Your task to perform on an android device: turn off picture-in-picture Image 0: 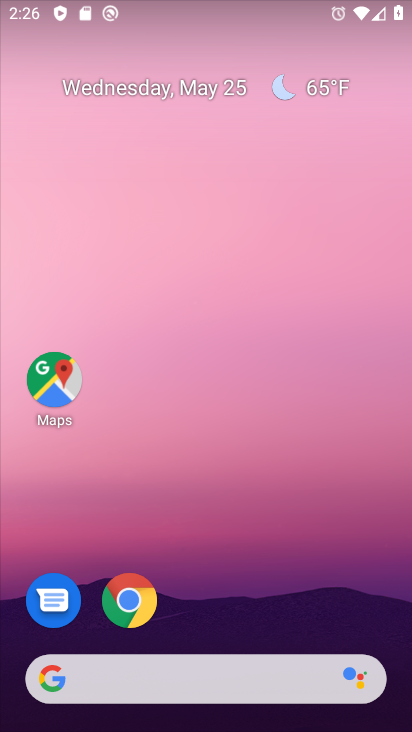
Step 0: click (129, 596)
Your task to perform on an android device: turn off picture-in-picture Image 1: 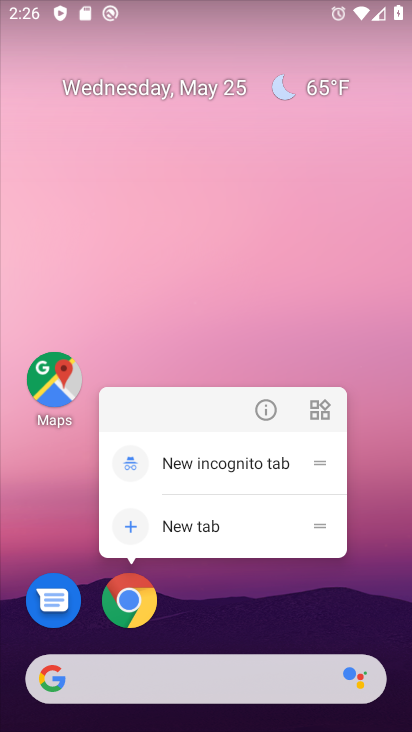
Step 1: click (259, 403)
Your task to perform on an android device: turn off picture-in-picture Image 2: 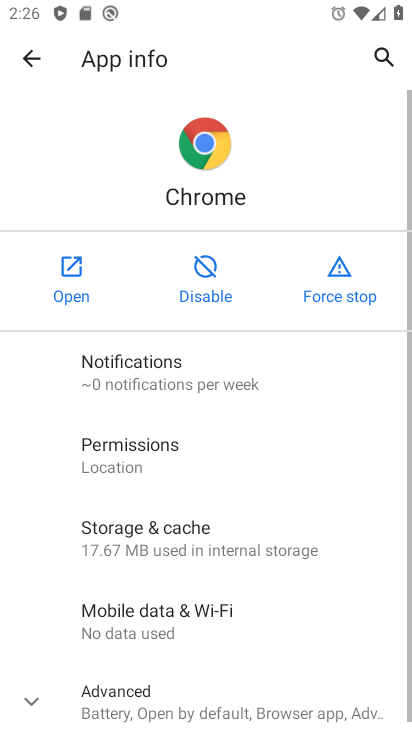
Step 2: drag from (217, 582) to (238, 86)
Your task to perform on an android device: turn off picture-in-picture Image 3: 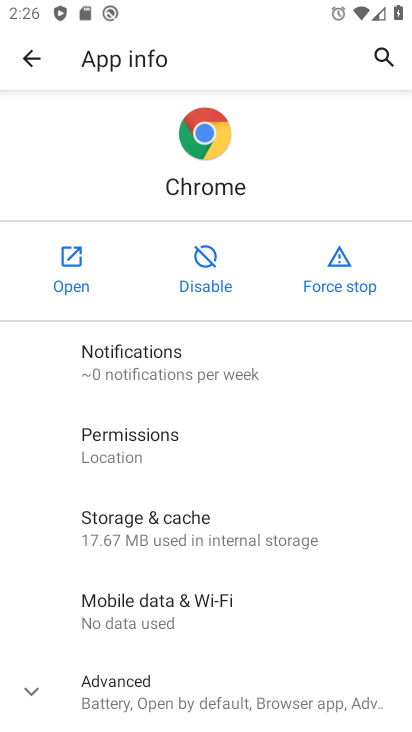
Step 3: click (190, 686)
Your task to perform on an android device: turn off picture-in-picture Image 4: 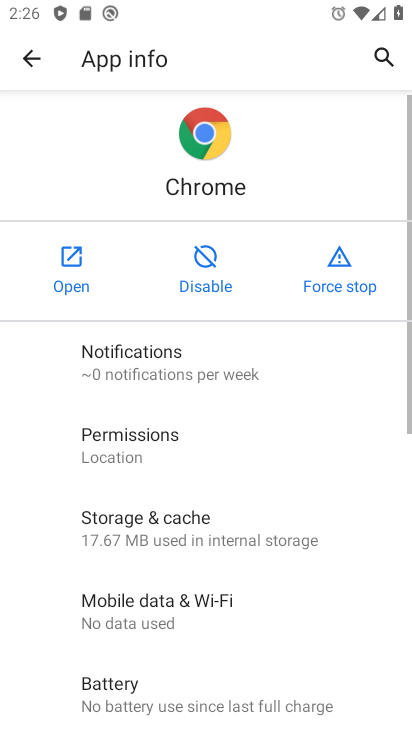
Step 4: drag from (199, 613) to (134, 72)
Your task to perform on an android device: turn off picture-in-picture Image 5: 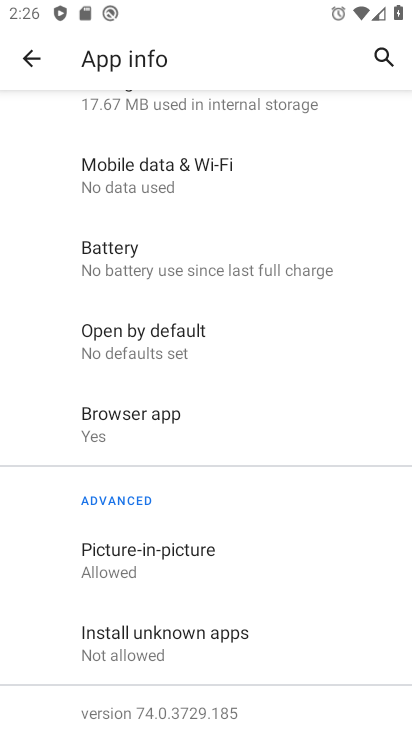
Step 5: click (148, 579)
Your task to perform on an android device: turn off picture-in-picture Image 6: 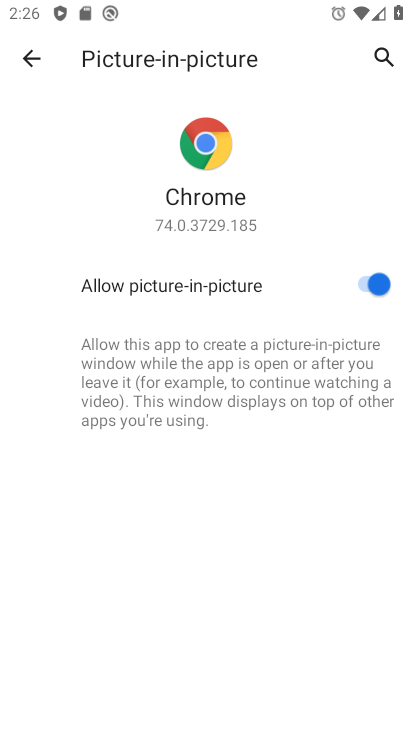
Step 6: click (360, 291)
Your task to perform on an android device: turn off picture-in-picture Image 7: 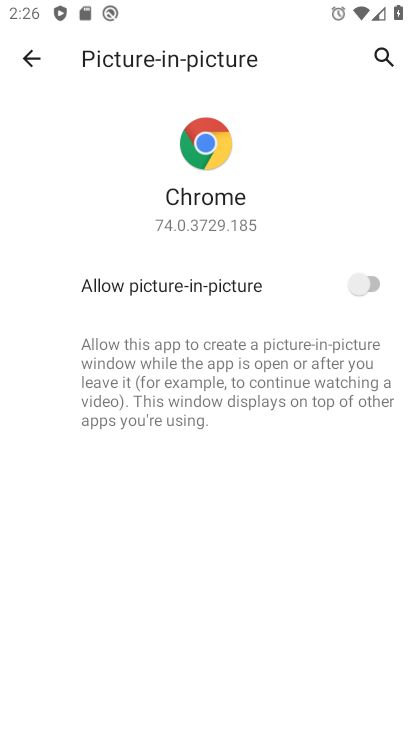
Step 7: task complete